Your task to perform on an android device: toggle pop-ups in chrome Image 0: 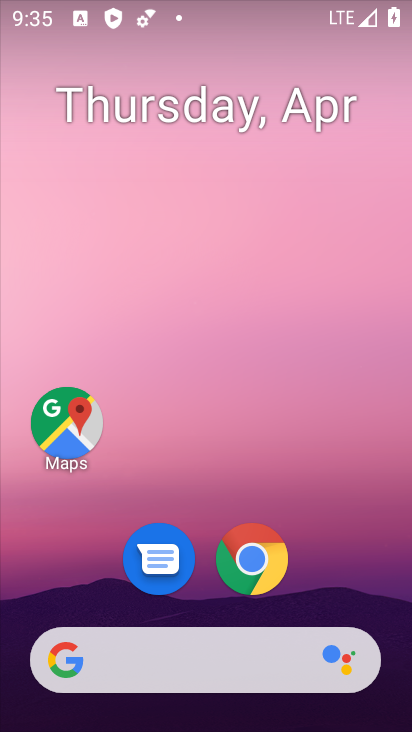
Step 0: click (251, 566)
Your task to perform on an android device: toggle pop-ups in chrome Image 1: 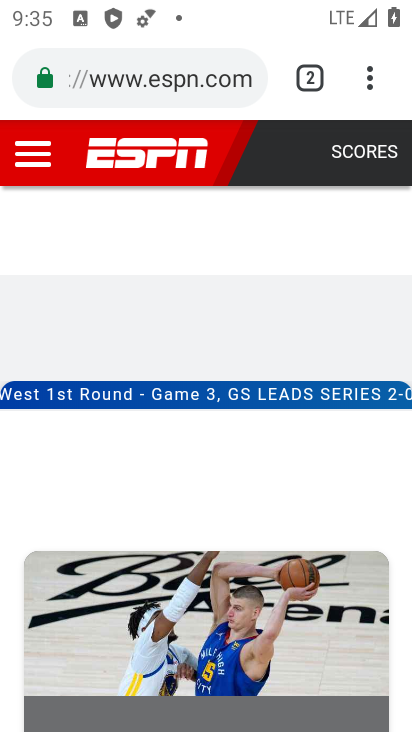
Step 1: click (368, 81)
Your task to perform on an android device: toggle pop-ups in chrome Image 2: 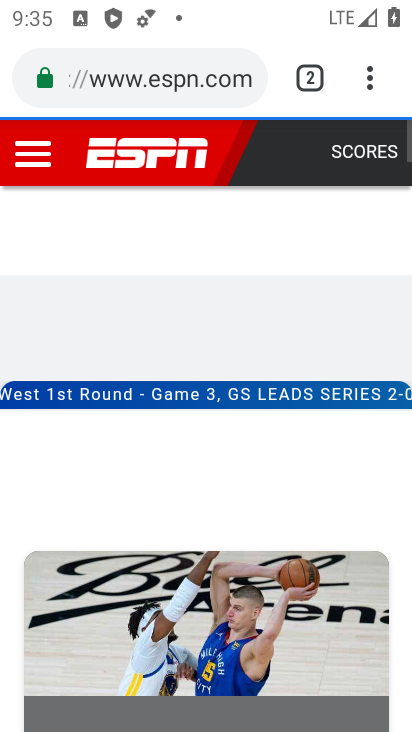
Step 2: click (368, 81)
Your task to perform on an android device: toggle pop-ups in chrome Image 3: 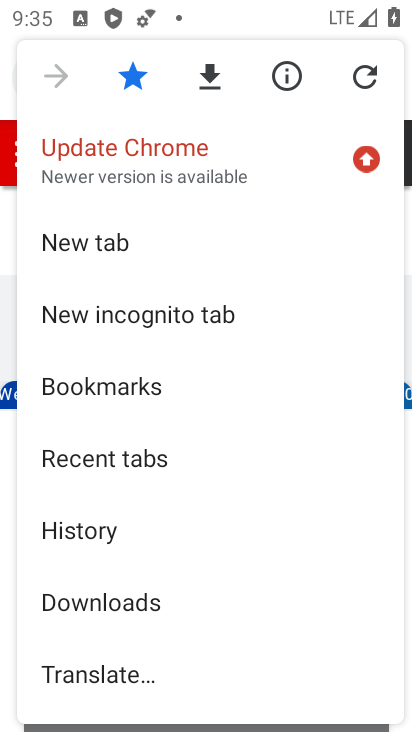
Step 3: drag from (159, 674) to (169, 10)
Your task to perform on an android device: toggle pop-ups in chrome Image 4: 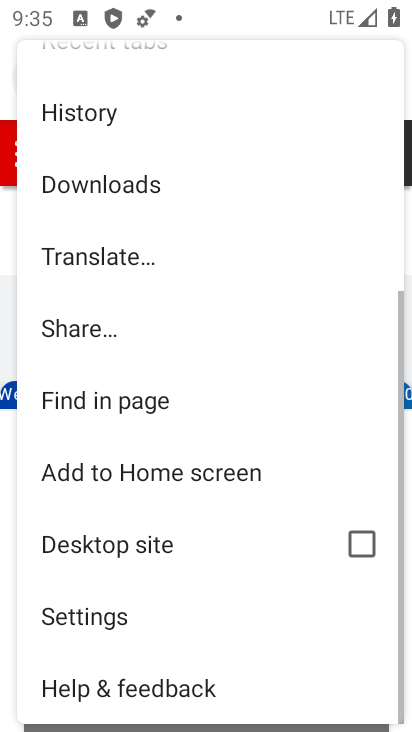
Step 4: click (113, 617)
Your task to perform on an android device: toggle pop-ups in chrome Image 5: 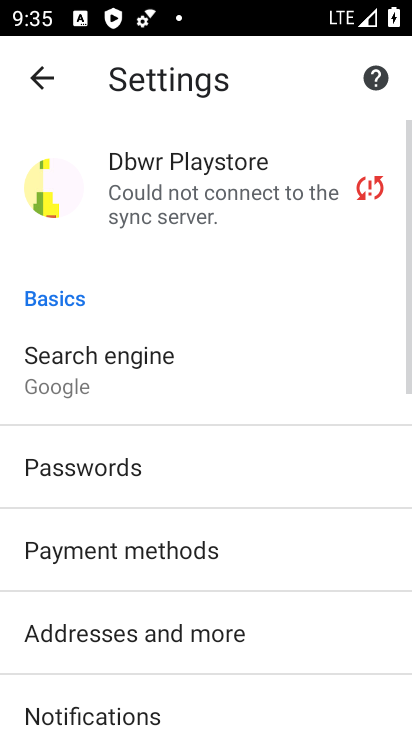
Step 5: drag from (193, 470) to (211, 42)
Your task to perform on an android device: toggle pop-ups in chrome Image 6: 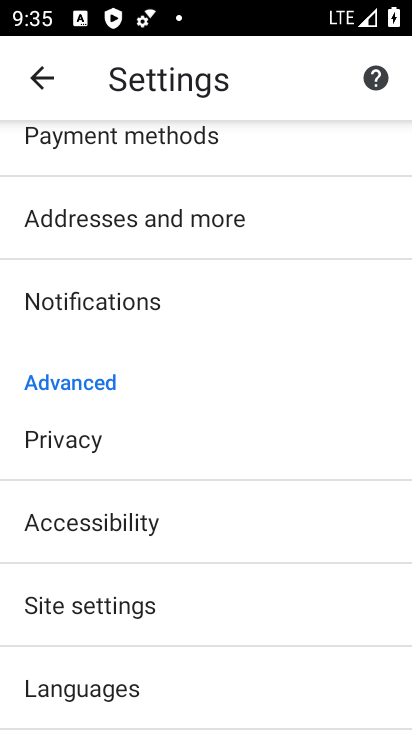
Step 6: click (126, 611)
Your task to perform on an android device: toggle pop-ups in chrome Image 7: 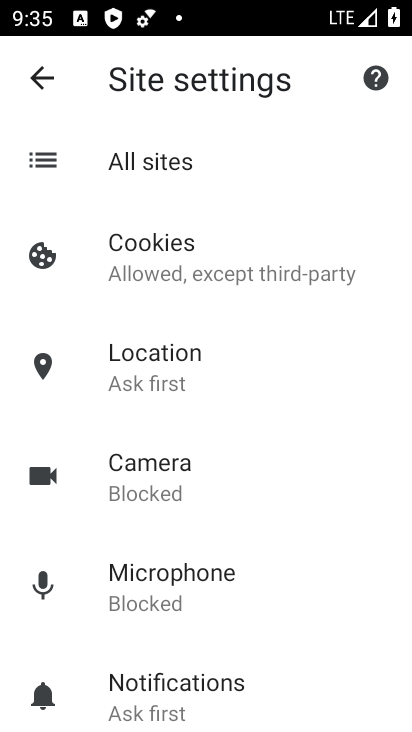
Step 7: drag from (205, 509) to (154, 161)
Your task to perform on an android device: toggle pop-ups in chrome Image 8: 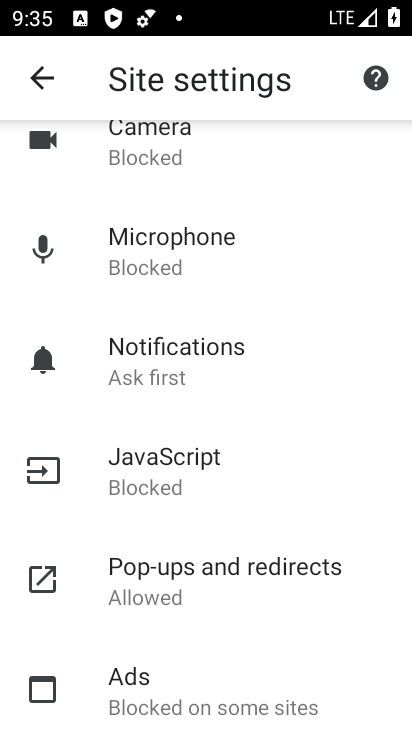
Step 8: click (218, 578)
Your task to perform on an android device: toggle pop-ups in chrome Image 9: 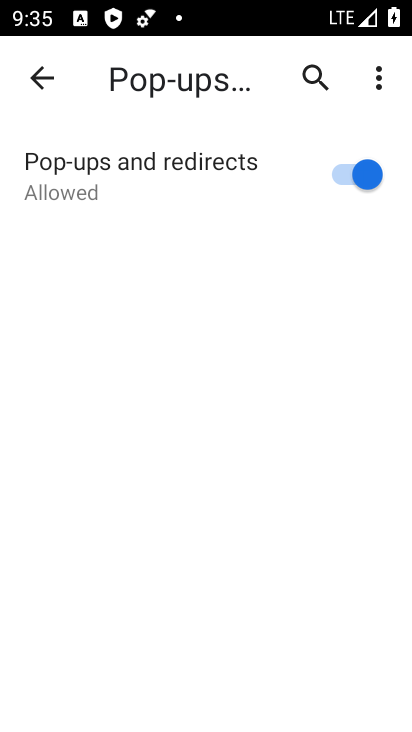
Step 9: click (372, 161)
Your task to perform on an android device: toggle pop-ups in chrome Image 10: 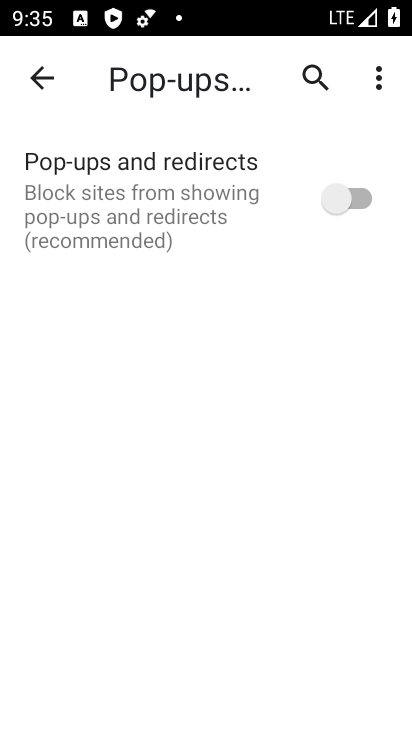
Step 10: task complete